Your task to perform on an android device: Search for Mexican restaurants on Maps Image 0: 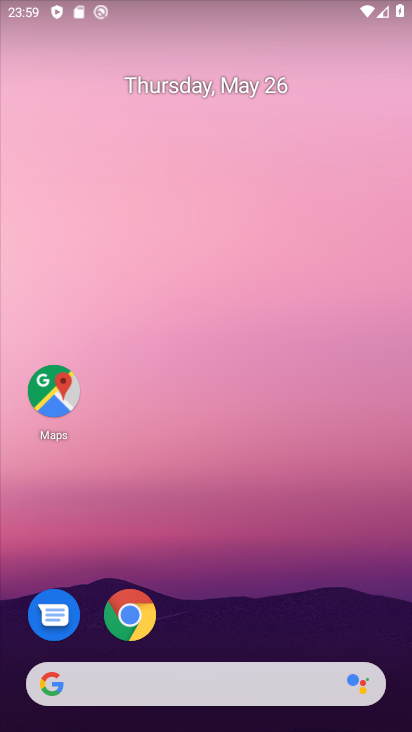
Step 0: press home button
Your task to perform on an android device: Search for Mexican restaurants on Maps Image 1: 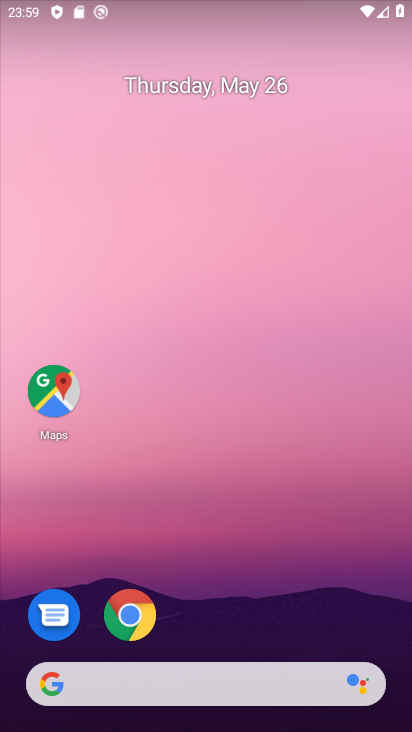
Step 1: click (66, 404)
Your task to perform on an android device: Search for Mexican restaurants on Maps Image 2: 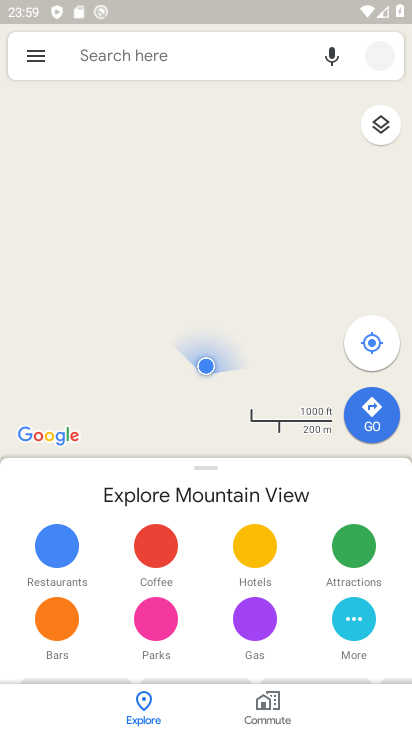
Step 2: click (98, 59)
Your task to perform on an android device: Search for Mexican restaurants on Maps Image 3: 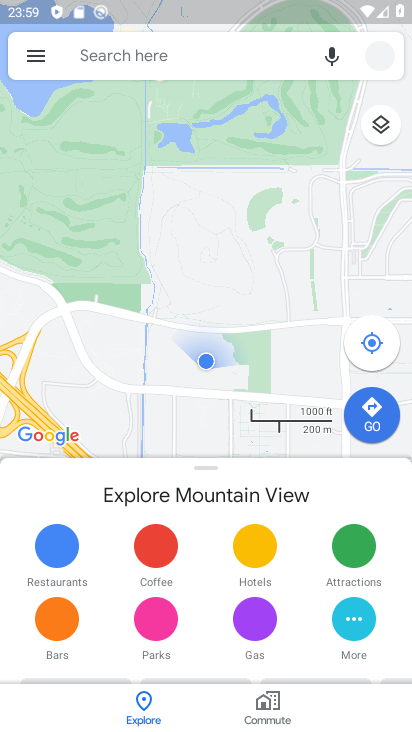
Step 3: click (98, 59)
Your task to perform on an android device: Search for Mexican restaurants on Maps Image 4: 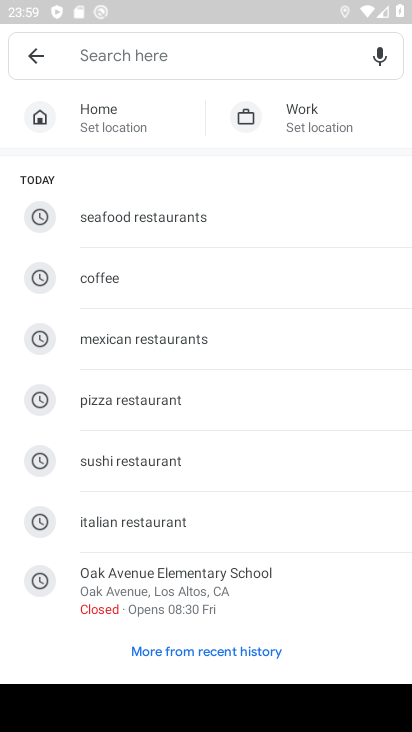
Step 4: type "Mexican restaurants "
Your task to perform on an android device: Search for Mexican restaurants on Maps Image 5: 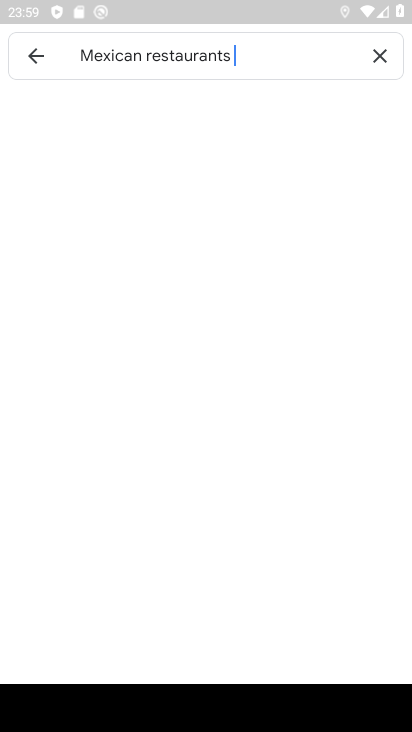
Step 5: click (169, 108)
Your task to perform on an android device: Search for Mexican restaurants on Maps Image 6: 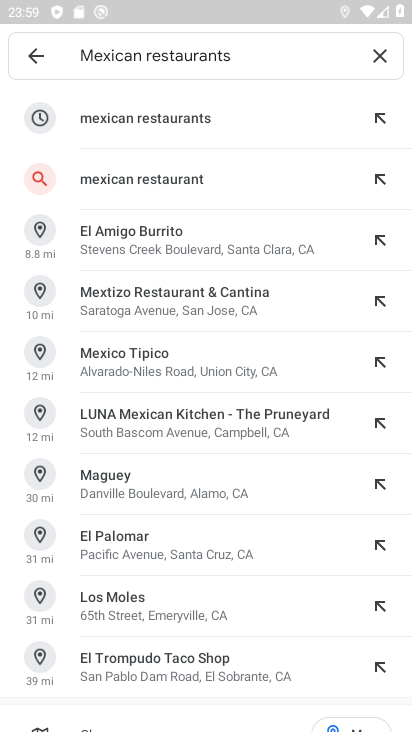
Step 6: click (167, 126)
Your task to perform on an android device: Search for Mexican restaurants on Maps Image 7: 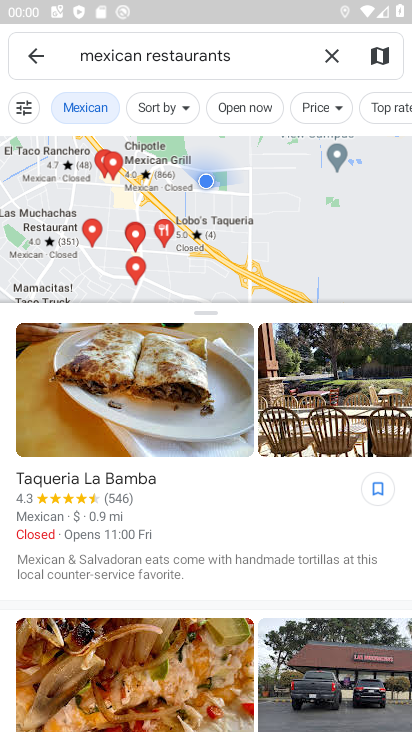
Step 7: task complete